Your task to perform on an android device: Go to network settings Image 0: 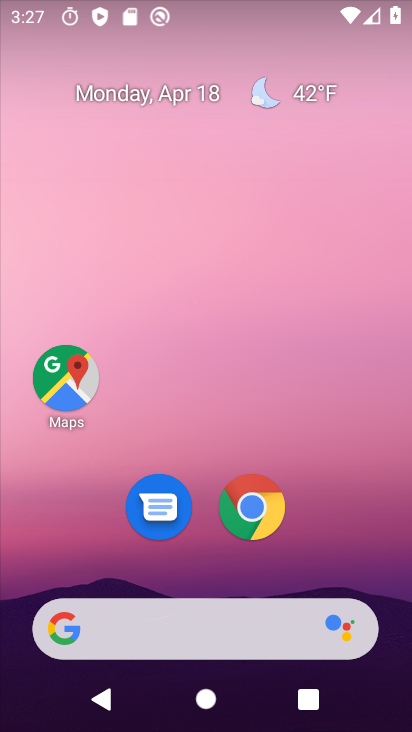
Step 0: drag from (335, 561) to (315, 134)
Your task to perform on an android device: Go to network settings Image 1: 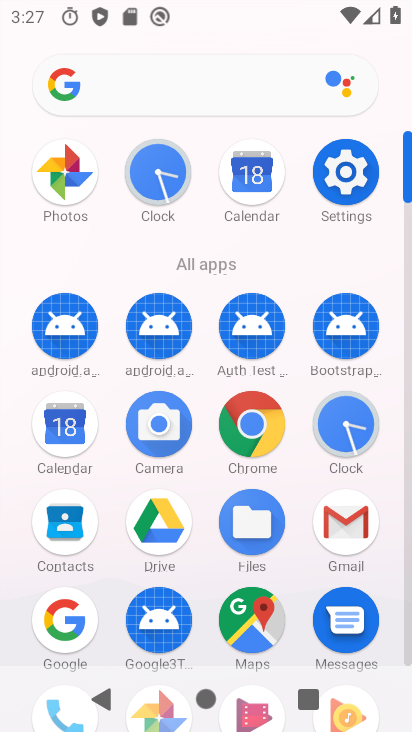
Step 1: click (331, 169)
Your task to perform on an android device: Go to network settings Image 2: 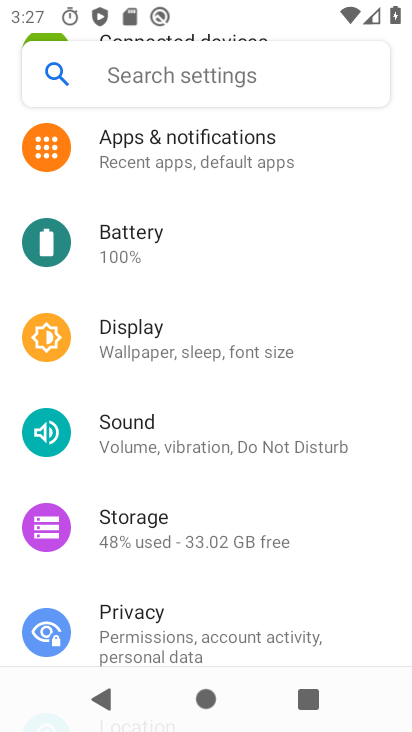
Step 2: drag from (202, 360) to (247, 523)
Your task to perform on an android device: Go to network settings Image 3: 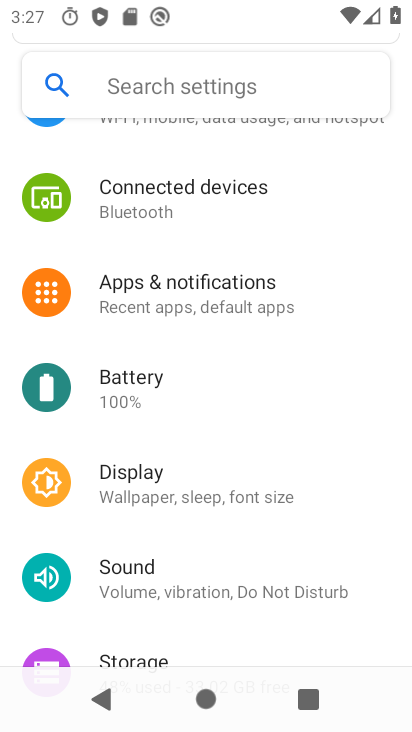
Step 3: drag from (211, 367) to (264, 513)
Your task to perform on an android device: Go to network settings Image 4: 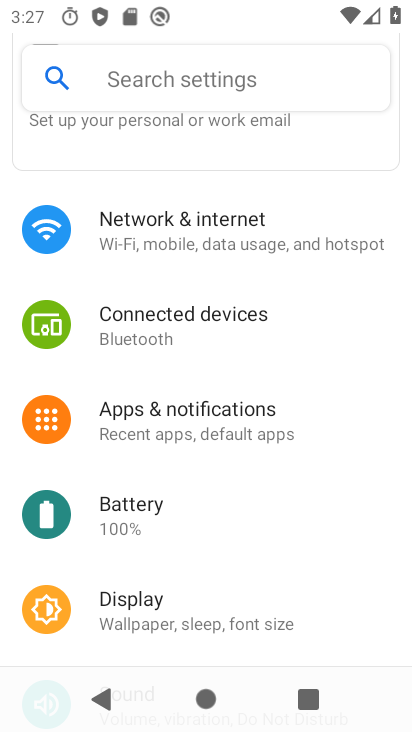
Step 4: click (243, 217)
Your task to perform on an android device: Go to network settings Image 5: 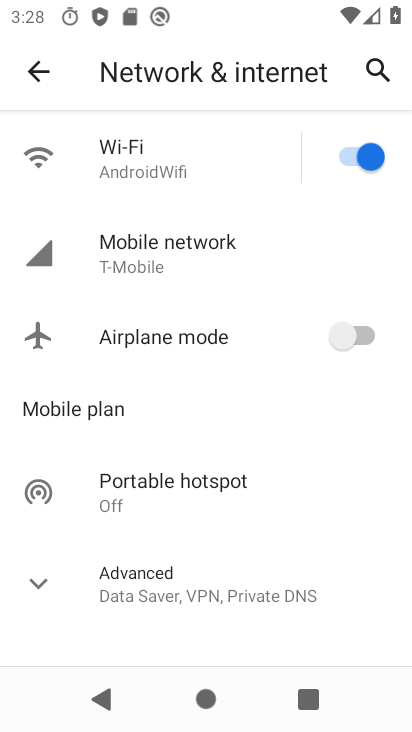
Step 5: click (172, 266)
Your task to perform on an android device: Go to network settings Image 6: 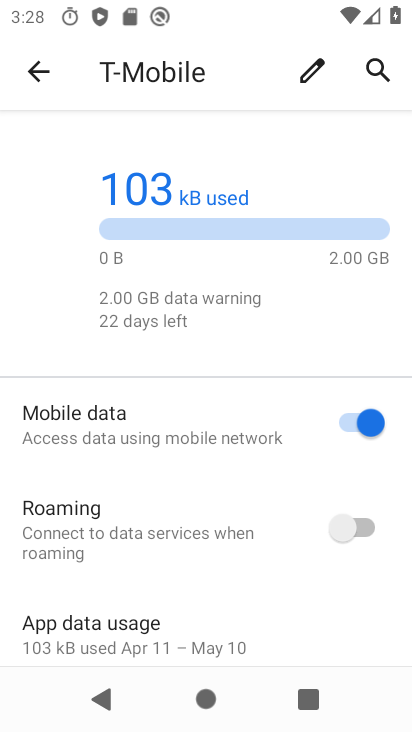
Step 6: task complete